Your task to perform on an android device: Open the calendar and show me this week's events Image 0: 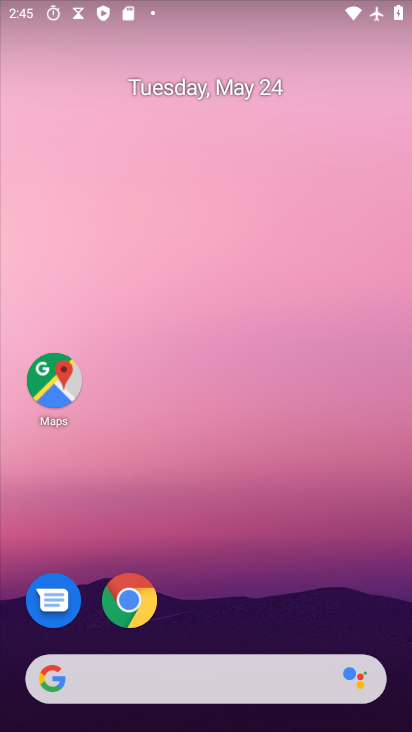
Step 0: click (229, 92)
Your task to perform on an android device: Open the calendar and show me this week's events Image 1: 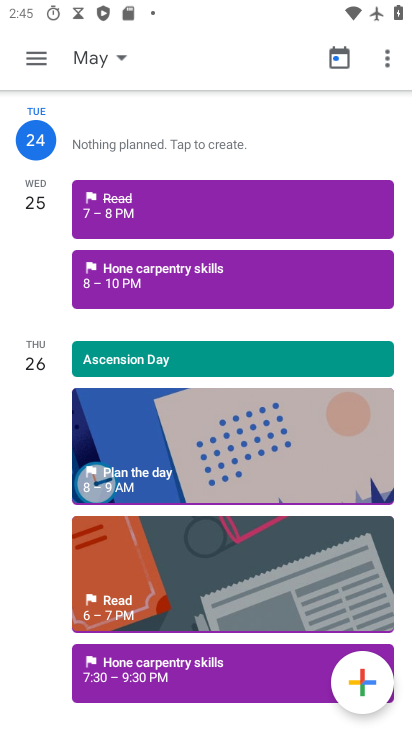
Step 1: drag from (40, 450) to (46, 185)
Your task to perform on an android device: Open the calendar and show me this week's events Image 2: 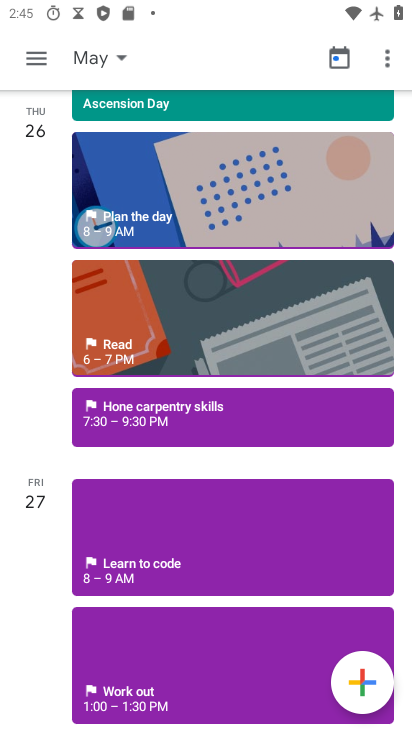
Step 2: drag from (45, 487) to (46, 230)
Your task to perform on an android device: Open the calendar and show me this week's events Image 3: 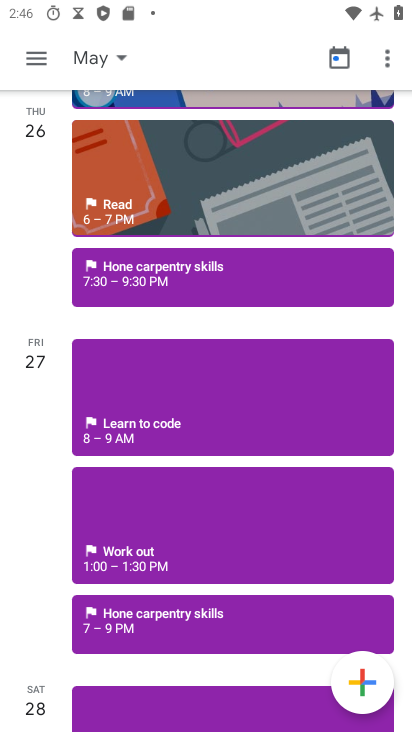
Step 3: drag from (36, 503) to (13, 184)
Your task to perform on an android device: Open the calendar and show me this week's events Image 4: 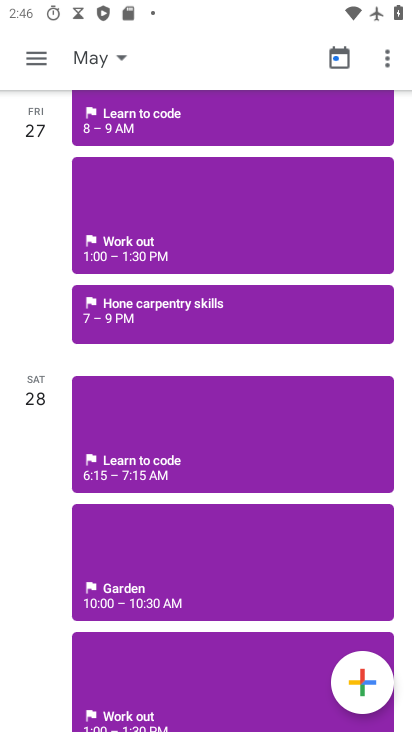
Step 4: click (41, 56)
Your task to perform on an android device: Open the calendar and show me this week's events Image 5: 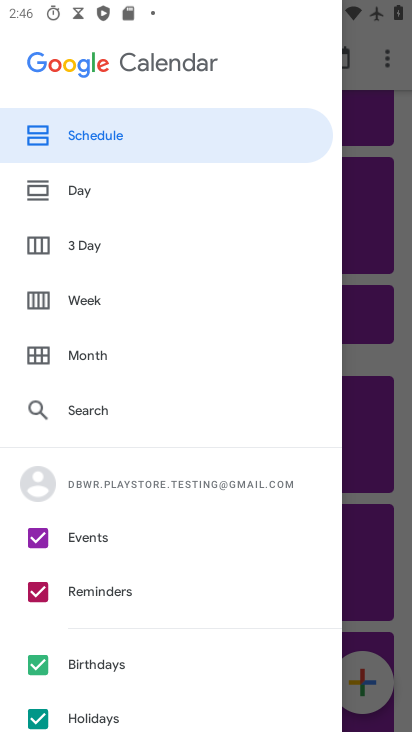
Step 5: click (153, 300)
Your task to perform on an android device: Open the calendar and show me this week's events Image 6: 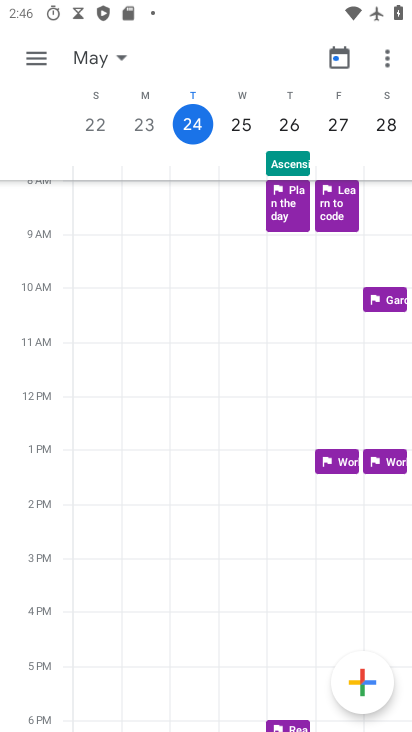
Step 6: task complete